Your task to perform on an android device: Search for vegetarian restaurants on Maps Image 0: 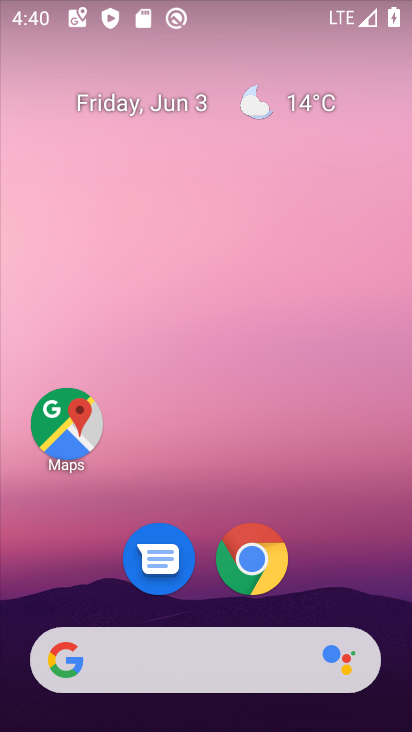
Step 0: drag from (334, 562) to (338, 127)
Your task to perform on an android device: Search for vegetarian restaurants on Maps Image 1: 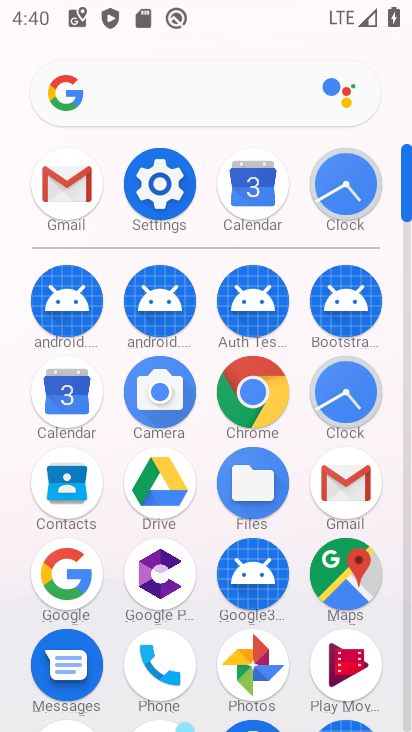
Step 1: click (347, 567)
Your task to perform on an android device: Search for vegetarian restaurants on Maps Image 2: 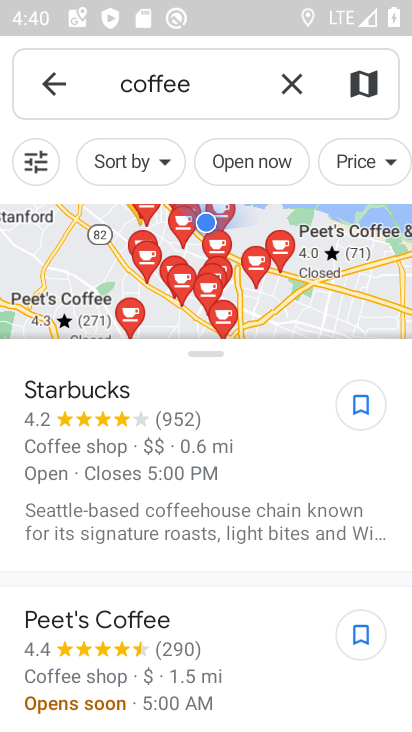
Step 2: click (297, 83)
Your task to perform on an android device: Search for vegetarian restaurants on Maps Image 3: 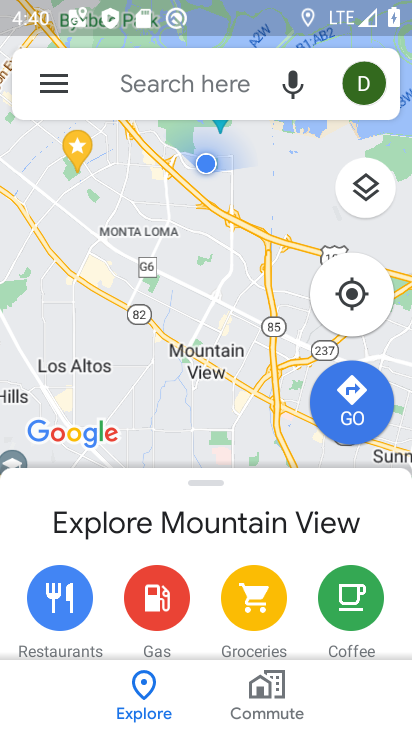
Step 3: click (195, 86)
Your task to perform on an android device: Search for vegetarian restaurants on Maps Image 4: 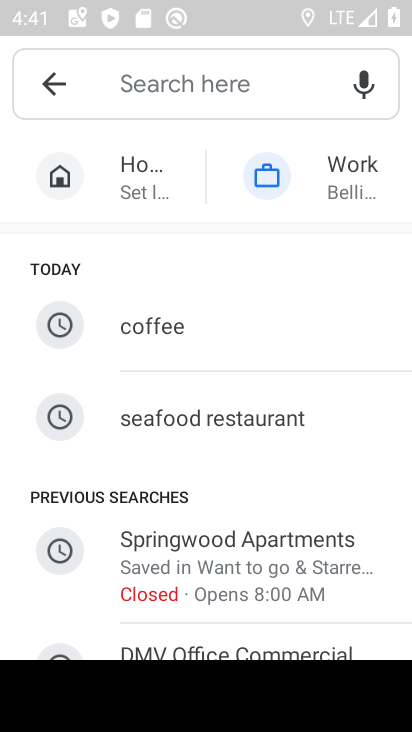
Step 4: type "vegetarian restaurants"
Your task to perform on an android device: Search for vegetarian restaurants on Maps Image 5: 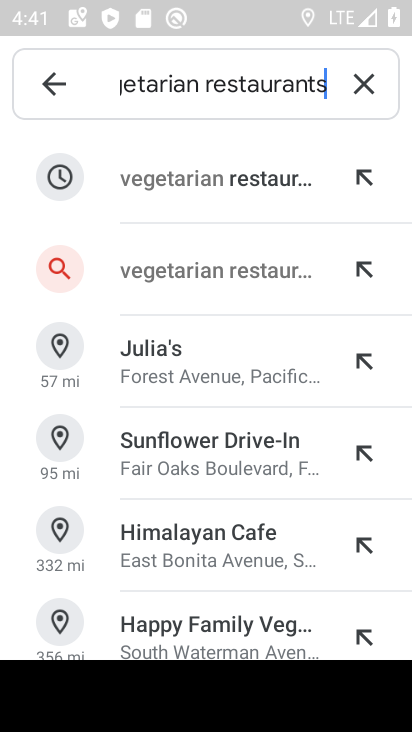
Step 5: click (267, 177)
Your task to perform on an android device: Search for vegetarian restaurants on Maps Image 6: 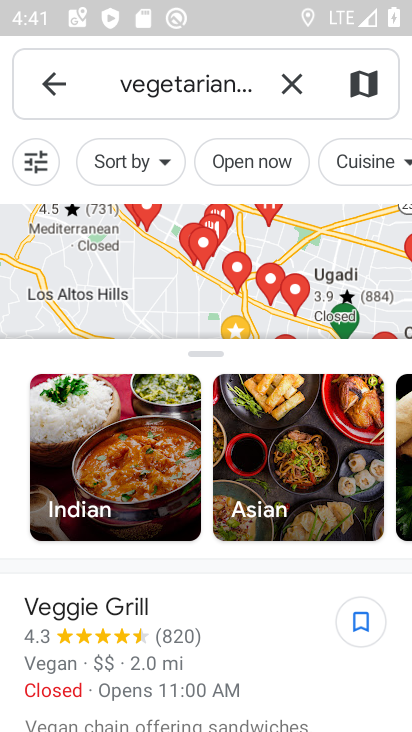
Step 6: task complete